Your task to perform on an android device: clear history in the chrome app Image 0: 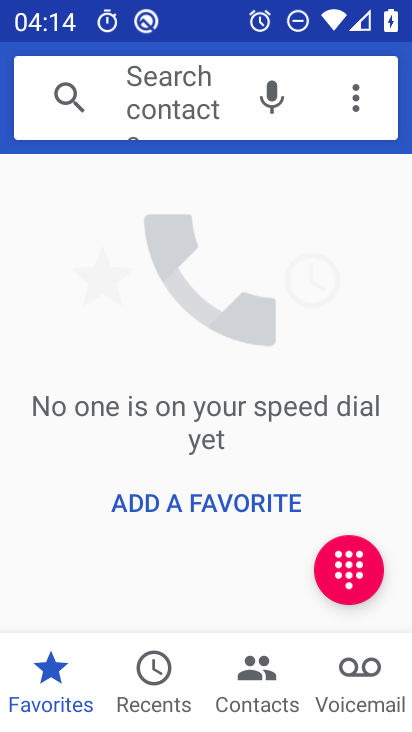
Step 0: press home button
Your task to perform on an android device: clear history in the chrome app Image 1: 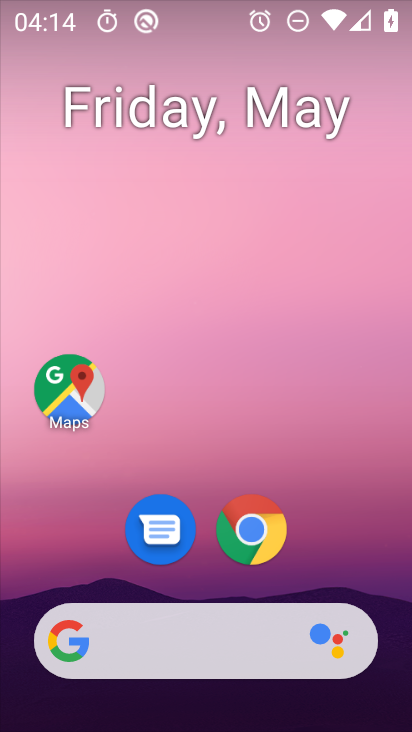
Step 1: click (246, 530)
Your task to perform on an android device: clear history in the chrome app Image 2: 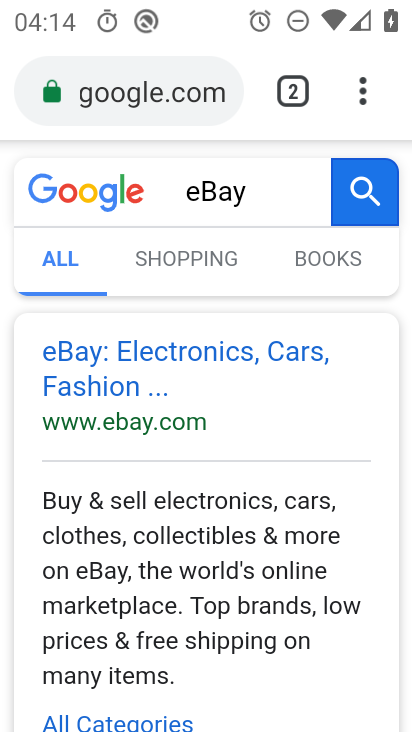
Step 2: click (357, 93)
Your task to perform on an android device: clear history in the chrome app Image 3: 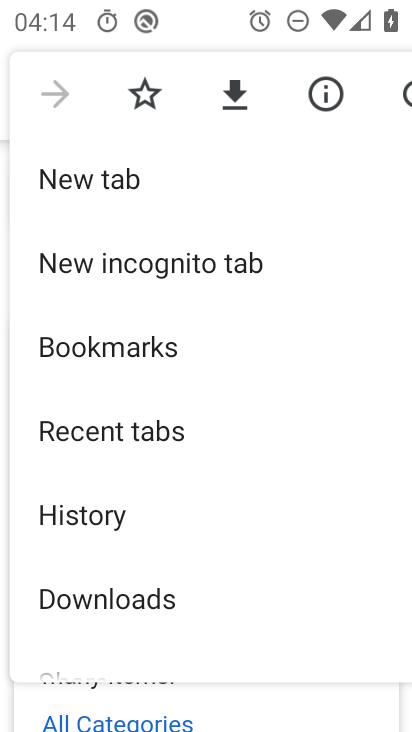
Step 3: drag from (240, 612) to (289, 325)
Your task to perform on an android device: clear history in the chrome app Image 4: 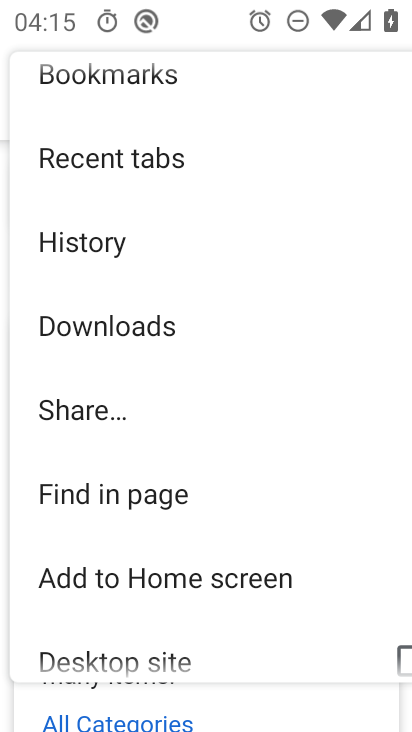
Step 4: drag from (273, 642) to (283, 360)
Your task to perform on an android device: clear history in the chrome app Image 5: 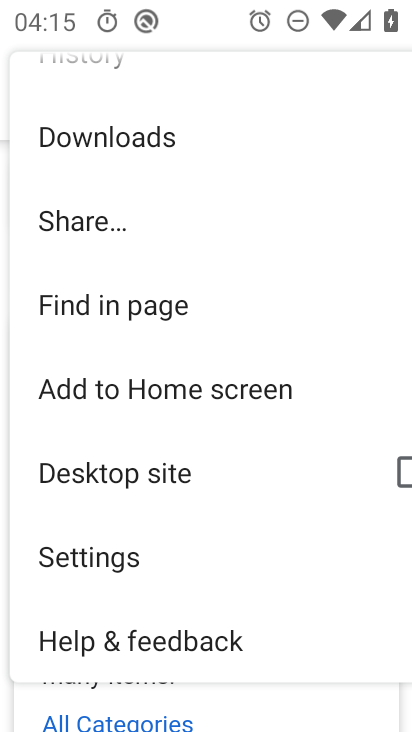
Step 5: drag from (220, 194) to (255, 366)
Your task to perform on an android device: clear history in the chrome app Image 6: 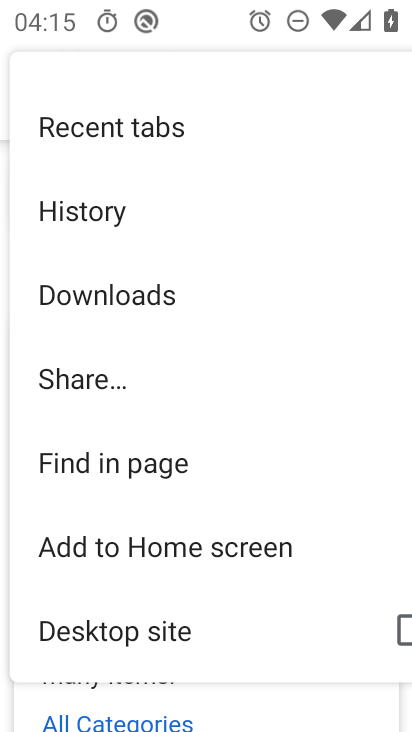
Step 6: click (104, 211)
Your task to perform on an android device: clear history in the chrome app Image 7: 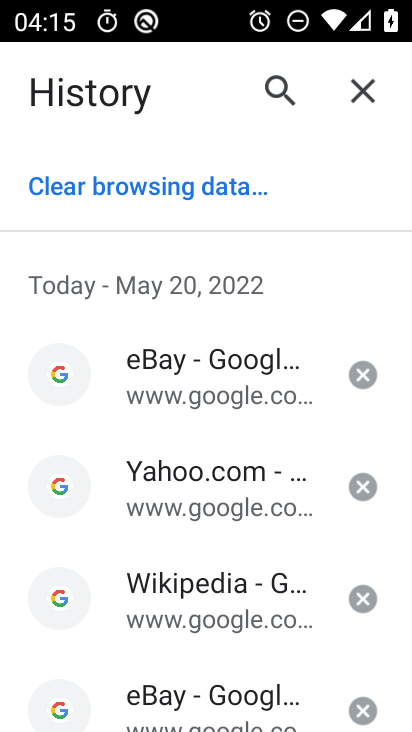
Step 7: click (149, 181)
Your task to perform on an android device: clear history in the chrome app Image 8: 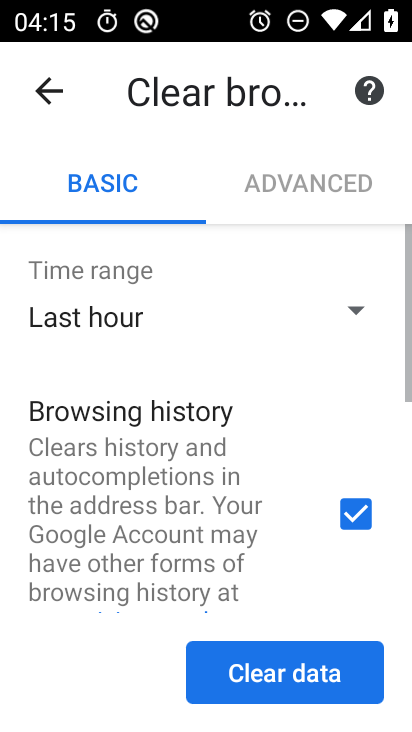
Step 8: click (283, 674)
Your task to perform on an android device: clear history in the chrome app Image 9: 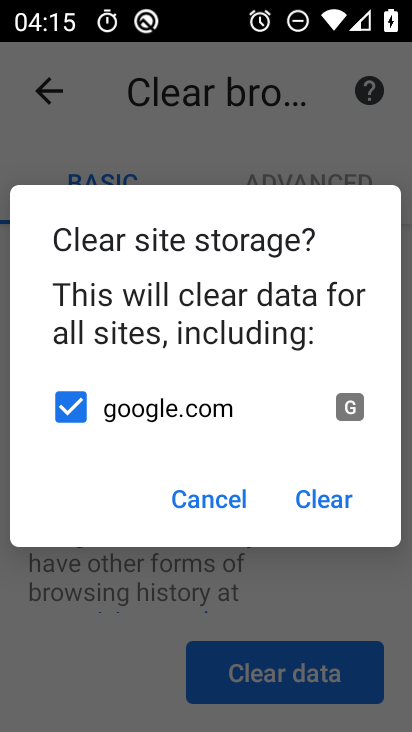
Step 9: click (313, 502)
Your task to perform on an android device: clear history in the chrome app Image 10: 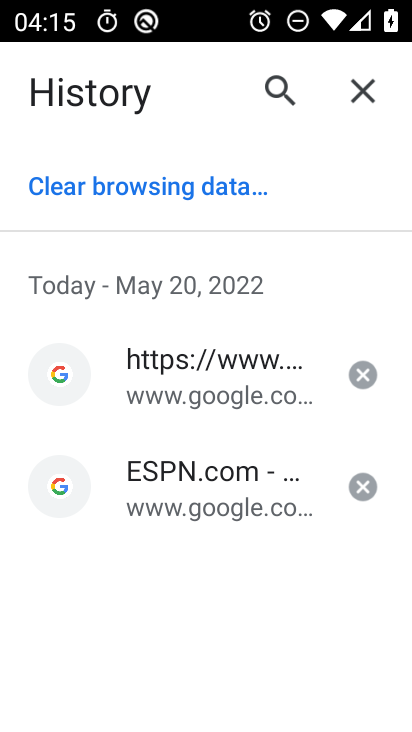
Step 10: click (370, 374)
Your task to perform on an android device: clear history in the chrome app Image 11: 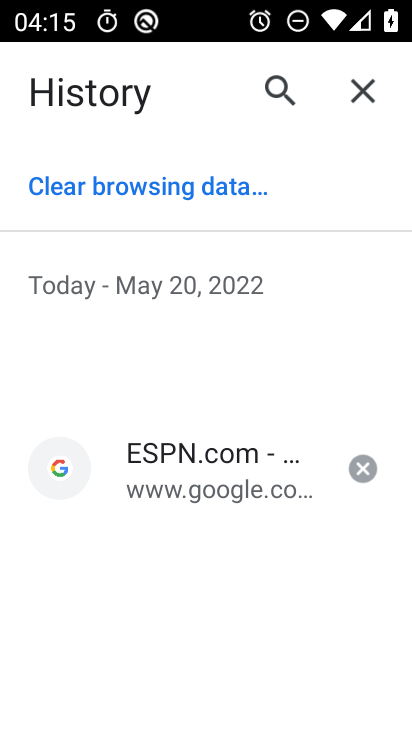
Step 11: click (363, 491)
Your task to perform on an android device: clear history in the chrome app Image 12: 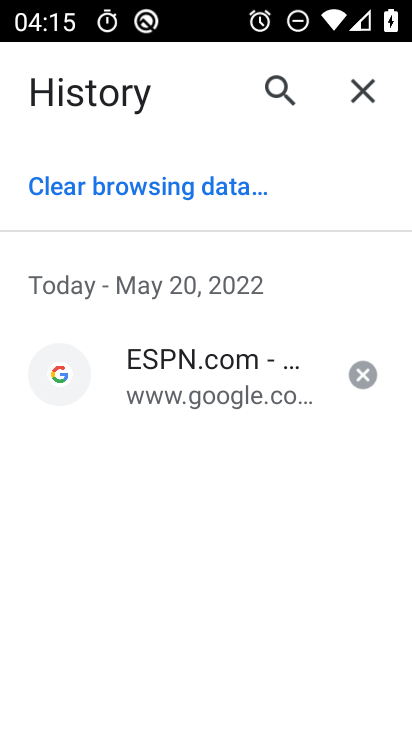
Step 12: click (373, 376)
Your task to perform on an android device: clear history in the chrome app Image 13: 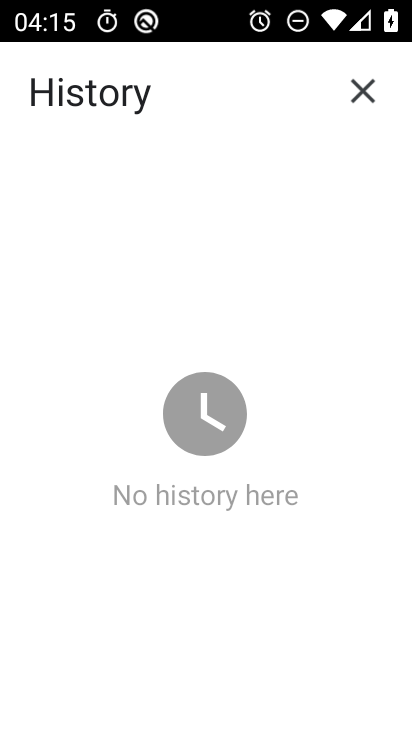
Step 13: task complete